Your task to perform on an android device: Open Google Chrome Image 0: 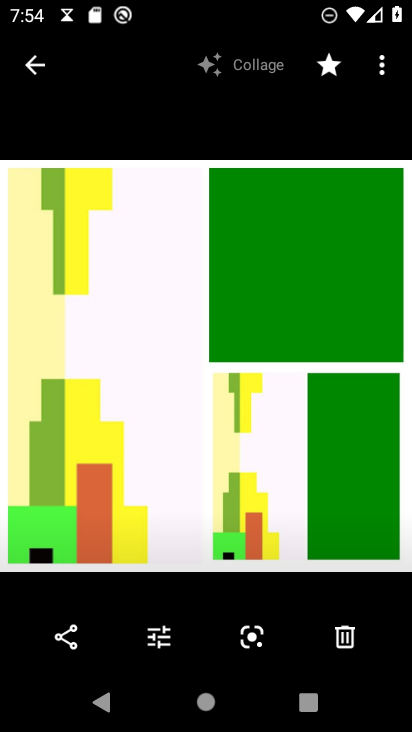
Step 0: press home button
Your task to perform on an android device: Open Google Chrome Image 1: 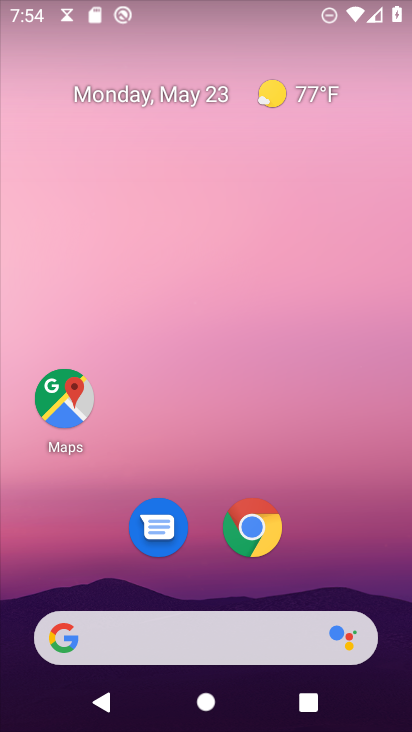
Step 1: drag from (242, 675) to (279, 83)
Your task to perform on an android device: Open Google Chrome Image 2: 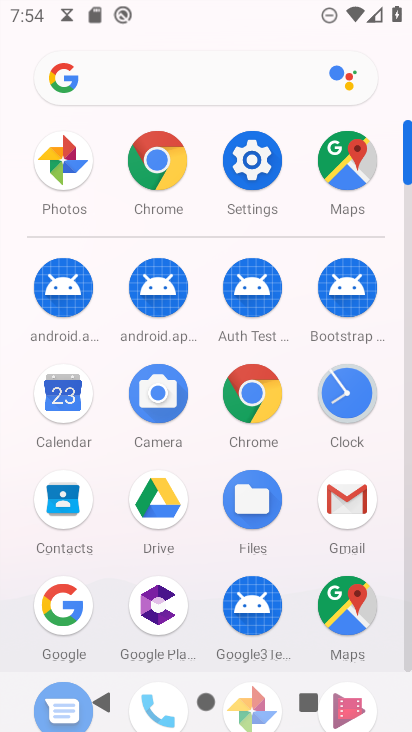
Step 2: click (161, 154)
Your task to perform on an android device: Open Google Chrome Image 3: 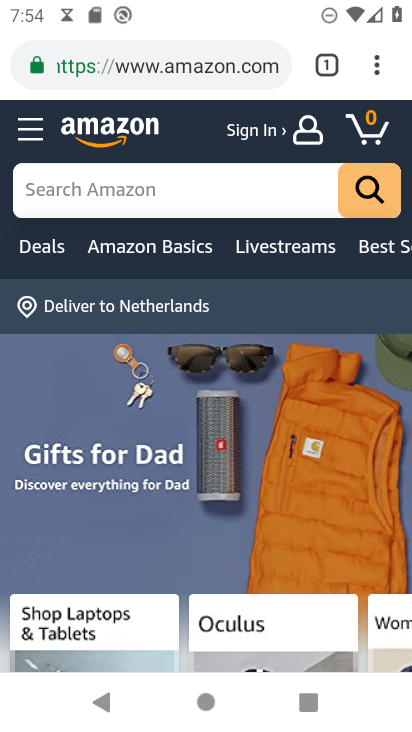
Step 3: click (376, 63)
Your task to perform on an android device: Open Google Chrome Image 4: 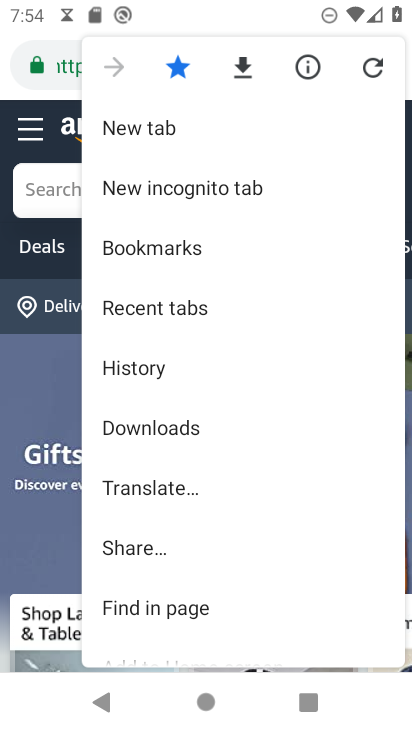
Step 4: drag from (214, 506) to (272, 299)
Your task to perform on an android device: Open Google Chrome Image 5: 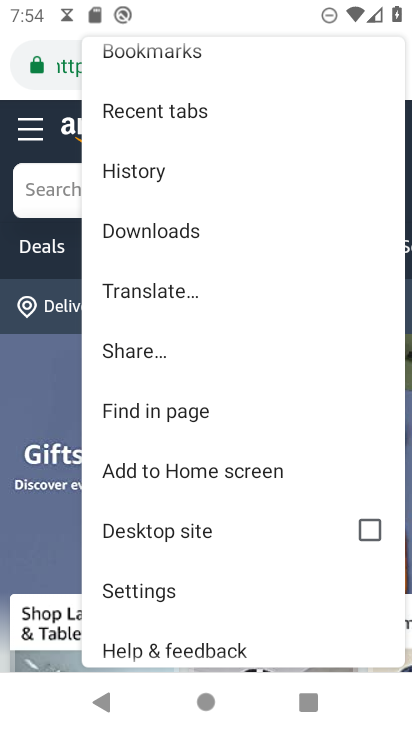
Step 5: drag from (149, 151) to (222, 479)
Your task to perform on an android device: Open Google Chrome Image 6: 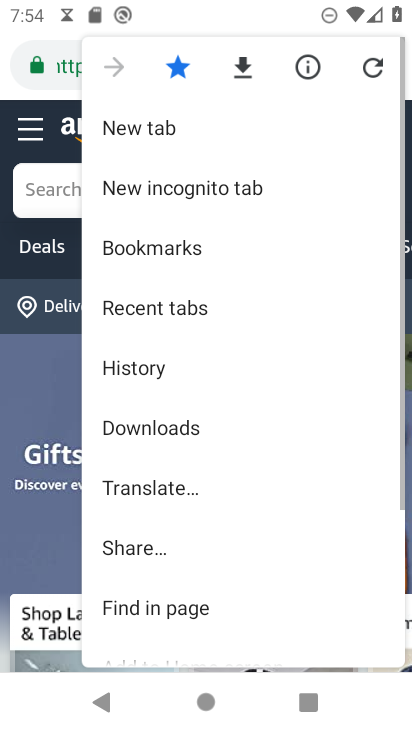
Step 6: click (154, 119)
Your task to perform on an android device: Open Google Chrome Image 7: 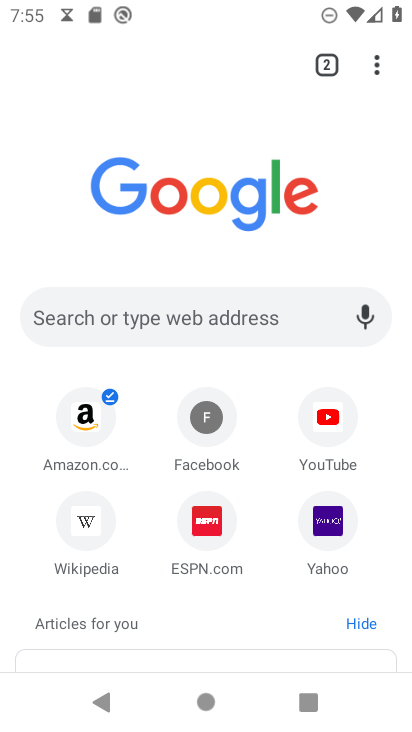
Step 7: task complete